Your task to perform on an android device: Show me recent news Image 0: 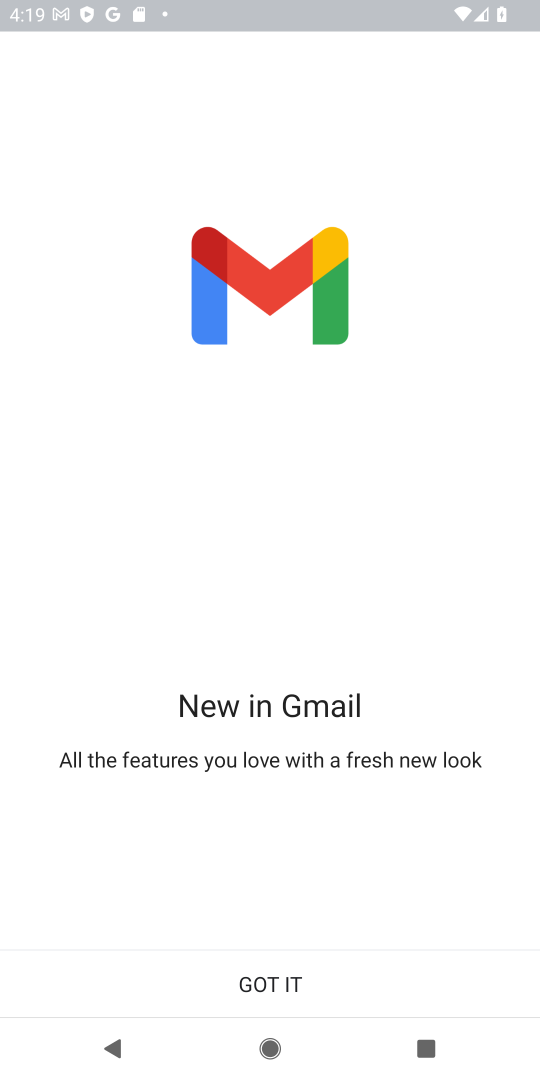
Step 0: press home button
Your task to perform on an android device: Show me recent news Image 1: 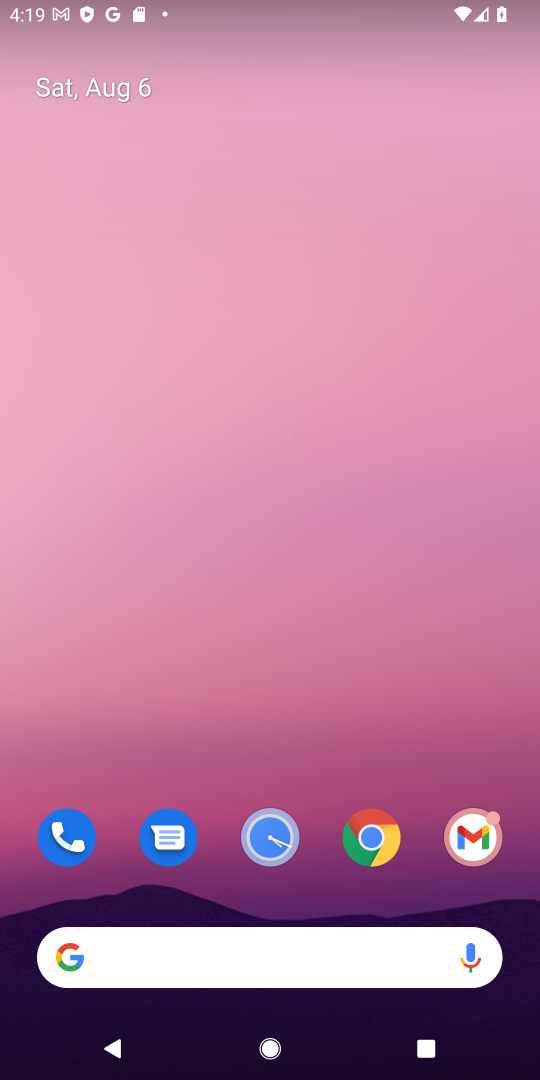
Step 1: task complete